Your task to perform on an android device: check android version Image 0: 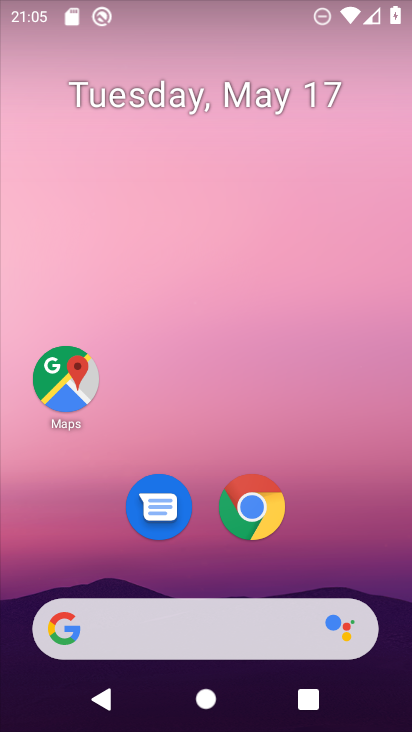
Step 0: drag from (379, 590) to (350, 5)
Your task to perform on an android device: check android version Image 1: 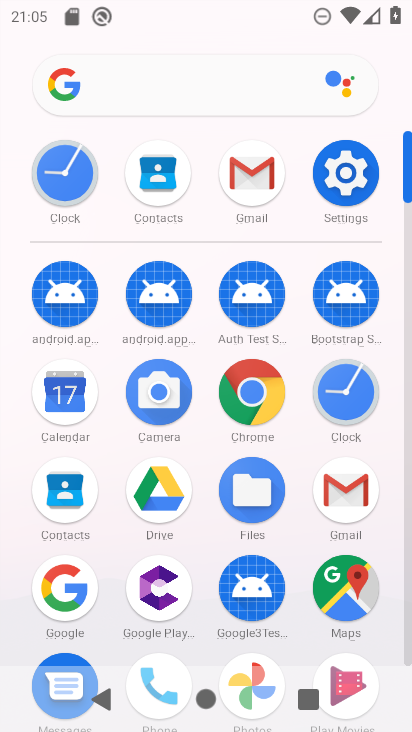
Step 1: click (336, 173)
Your task to perform on an android device: check android version Image 2: 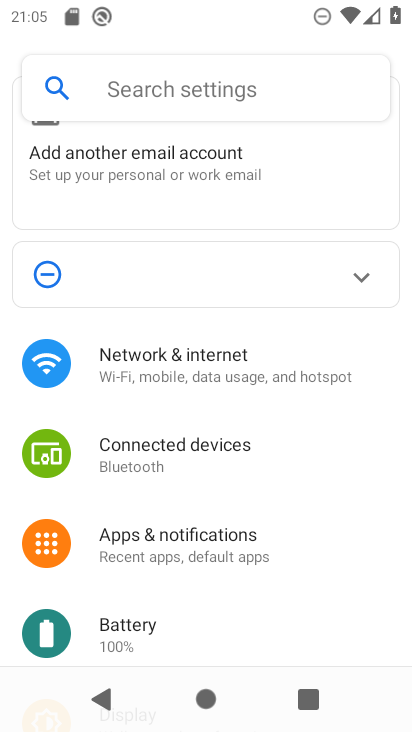
Step 2: drag from (303, 556) to (273, 43)
Your task to perform on an android device: check android version Image 3: 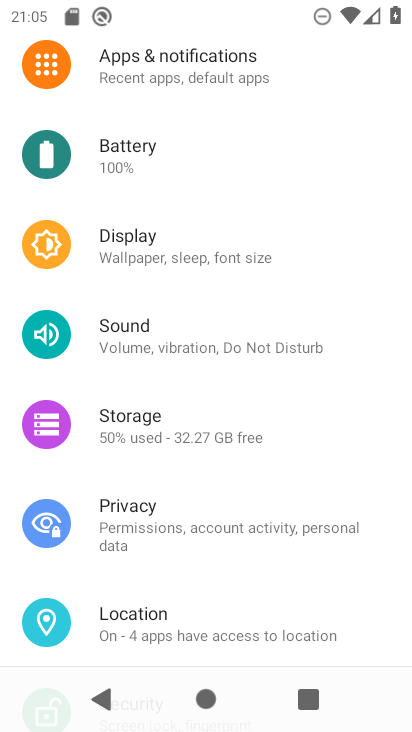
Step 3: drag from (249, 493) to (227, 171)
Your task to perform on an android device: check android version Image 4: 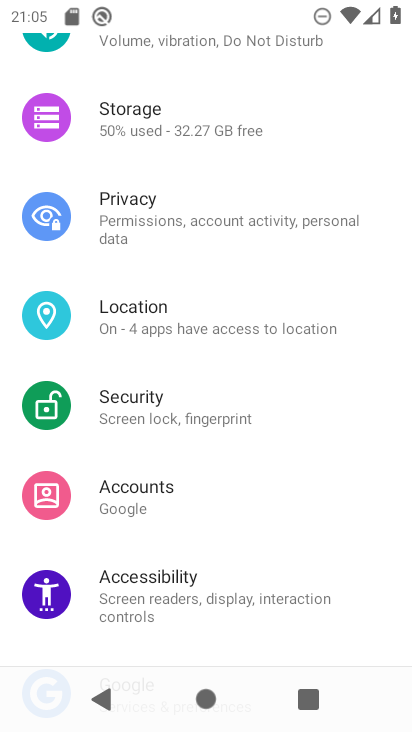
Step 4: drag from (276, 594) to (284, 252)
Your task to perform on an android device: check android version Image 5: 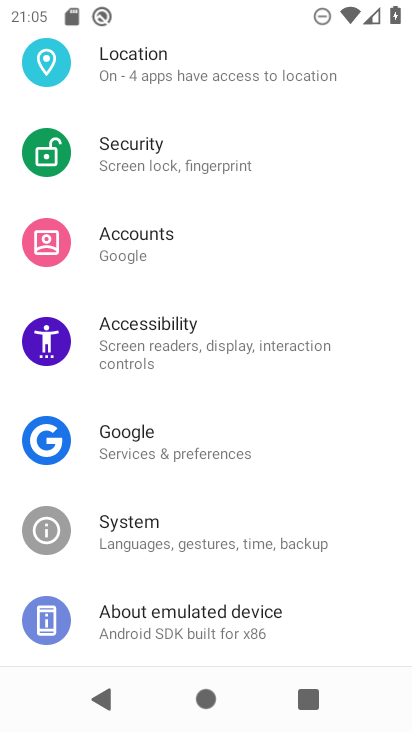
Step 5: drag from (274, 557) to (316, 202)
Your task to perform on an android device: check android version Image 6: 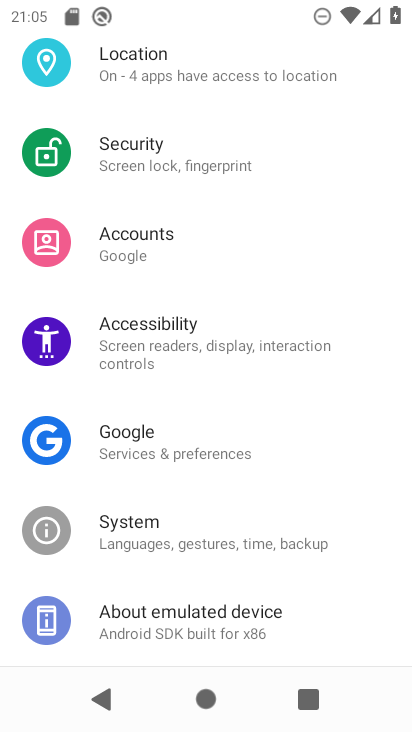
Step 6: click (171, 613)
Your task to perform on an android device: check android version Image 7: 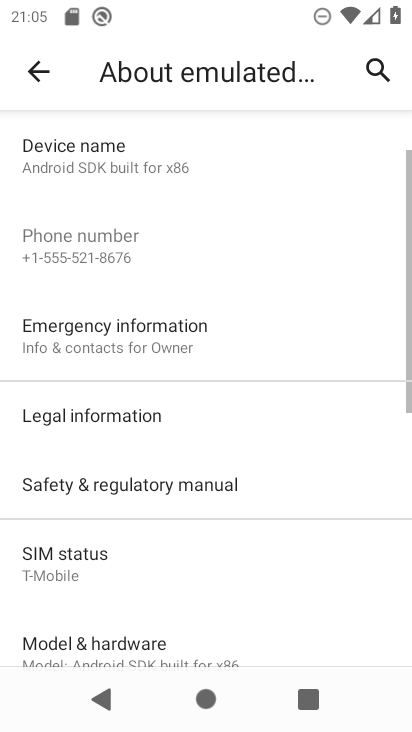
Step 7: drag from (196, 566) to (213, 59)
Your task to perform on an android device: check android version Image 8: 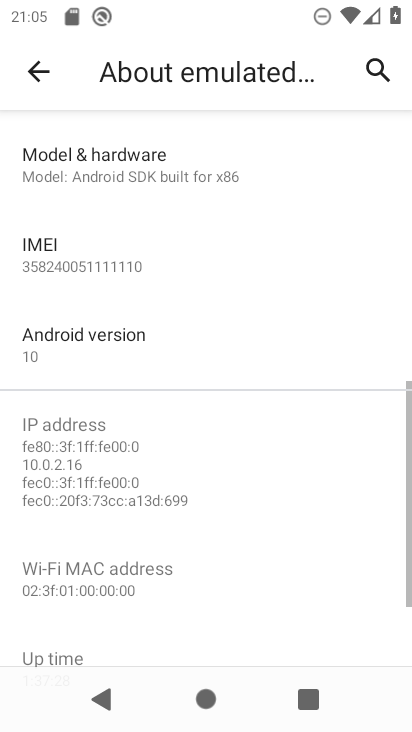
Step 8: click (66, 345)
Your task to perform on an android device: check android version Image 9: 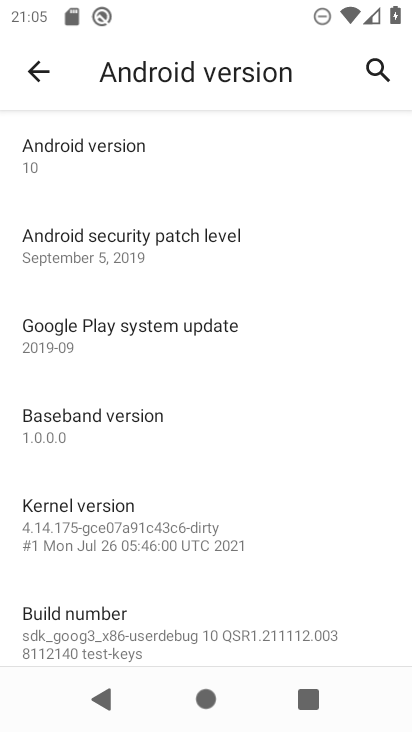
Step 9: task complete